Your task to perform on an android device: Is it going to rain tomorrow? Image 0: 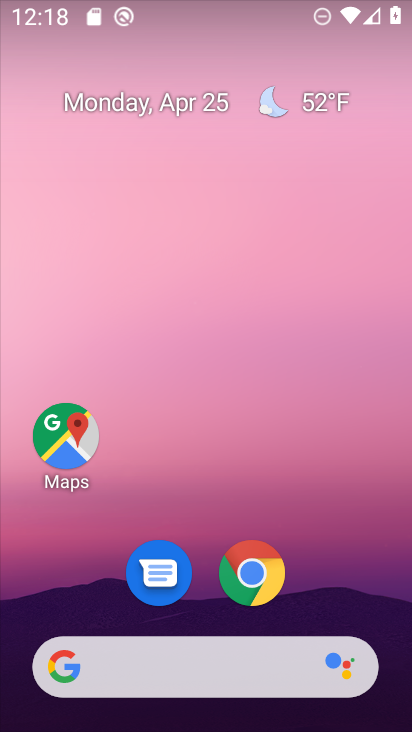
Step 0: click (268, 99)
Your task to perform on an android device: Is it going to rain tomorrow? Image 1: 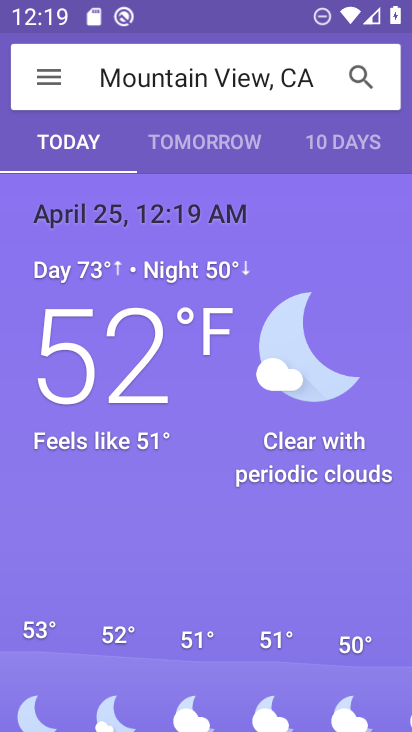
Step 1: click (217, 148)
Your task to perform on an android device: Is it going to rain tomorrow? Image 2: 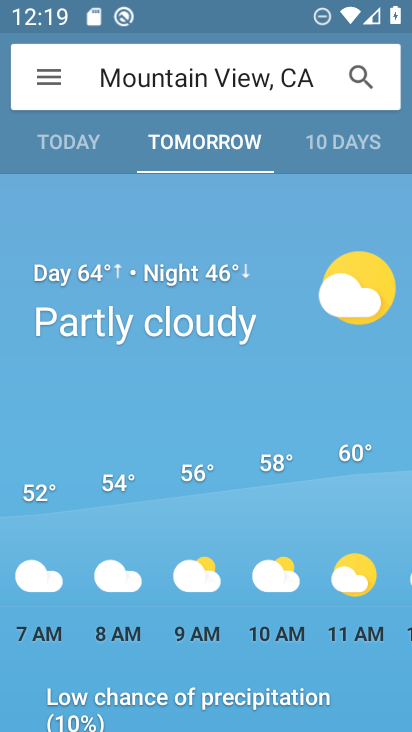
Step 2: task complete